Your task to perform on an android device: see sites visited before in the chrome app Image 0: 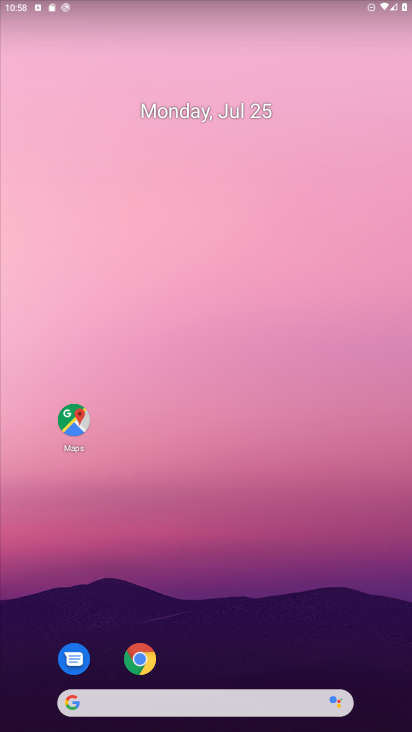
Step 0: click (147, 655)
Your task to perform on an android device: see sites visited before in the chrome app Image 1: 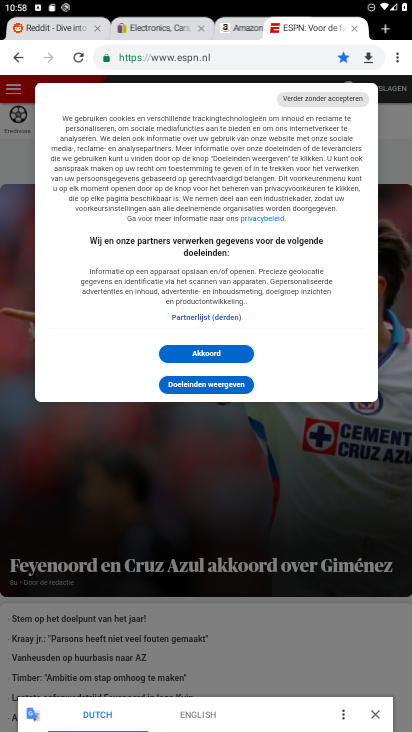
Step 1: click (394, 51)
Your task to perform on an android device: see sites visited before in the chrome app Image 2: 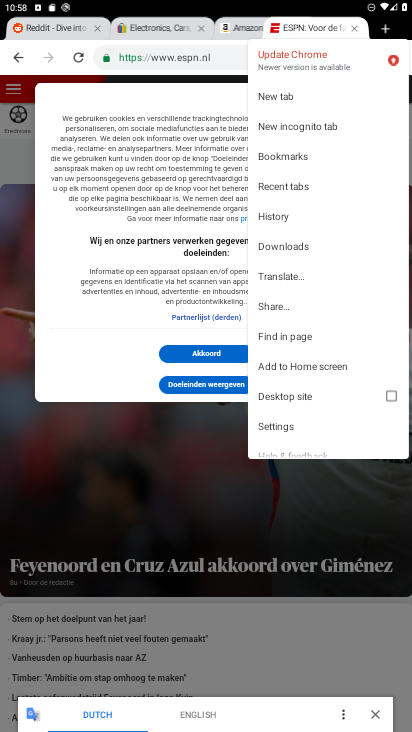
Step 2: click (291, 186)
Your task to perform on an android device: see sites visited before in the chrome app Image 3: 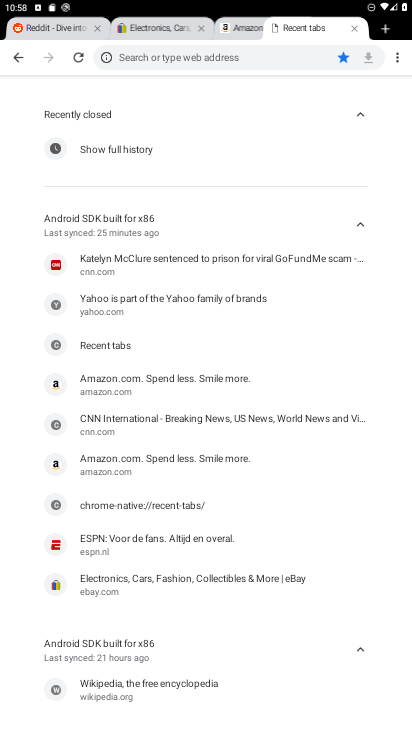
Step 3: task complete